Your task to perform on an android device: toggle notifications settings in the gmail app Image 0: 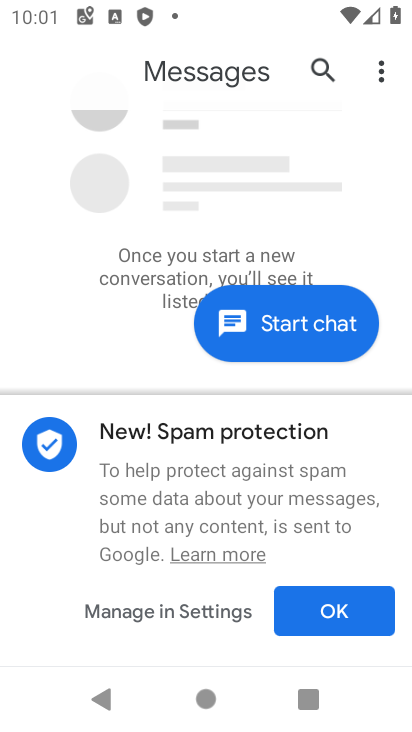
Step 0: press home button
Your task to perform on an android device: toggle notifications settings in the gmail app Image 1: 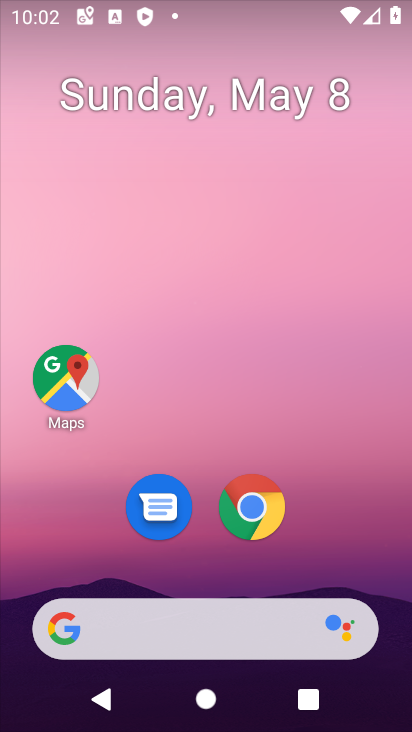
Step 1: drag from (256, 692) to (241, 119)
Your task to perform on an android device: toggle notifications settings in the gmail app Image 2: 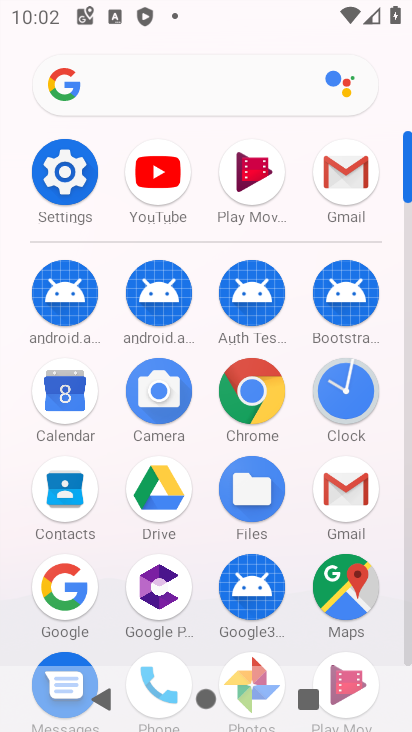
Step 2: click (354, 503)
Your task to perform on an android device: toggle notifications settings in the gmail app Image 3: 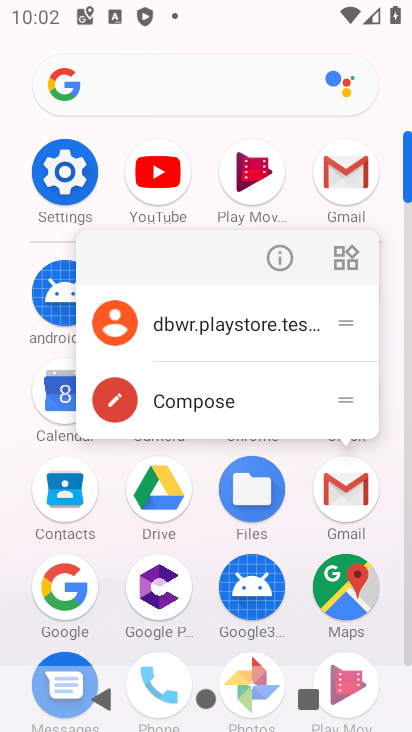
Step 3: click (277, 262)
Your task to perform on an android device: toggle notifications settings in the gmail app Image 4: 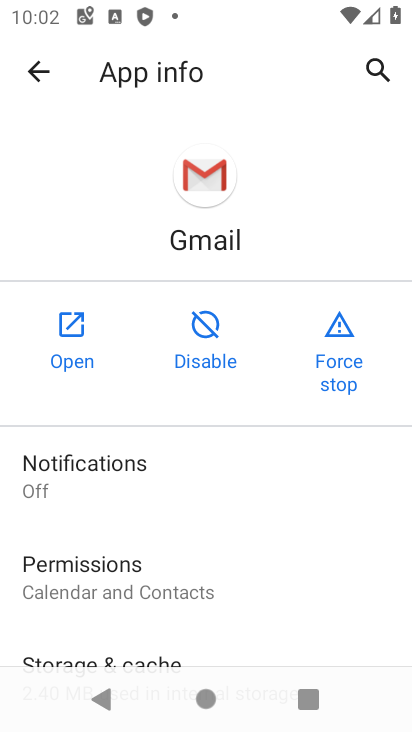
Step 4: click (108, 466)
Your task to perform on an android device: toggle notifications settings in the gmail app Image 5: 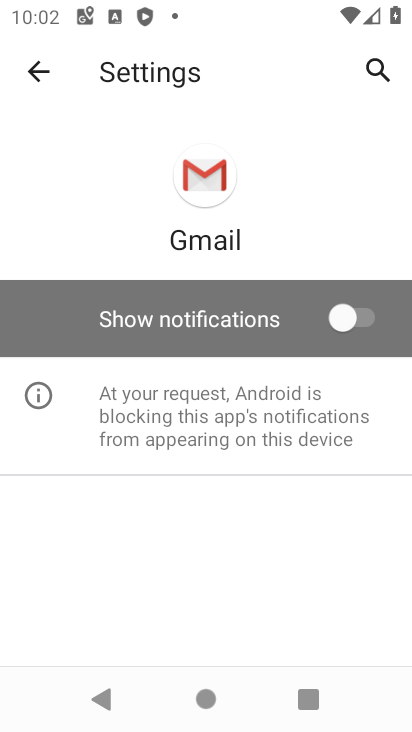
Step 5: click (359, 322)
Your task to perform on an android device: toggle notifications settings in the gmail app Image 6: 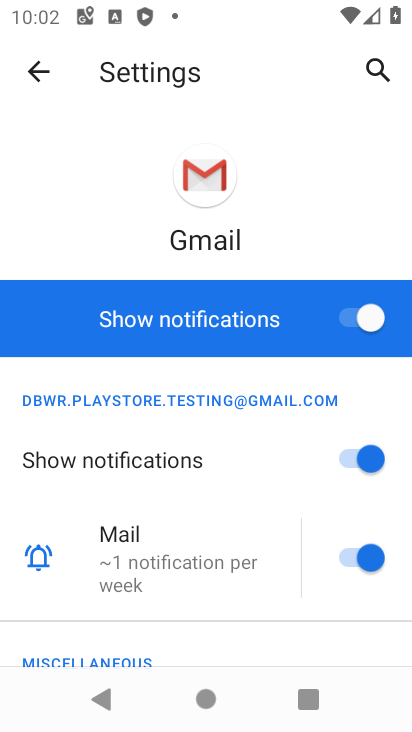
Step 6: task complete